Your task to perform on an android device: Open privacy settings Image 0: 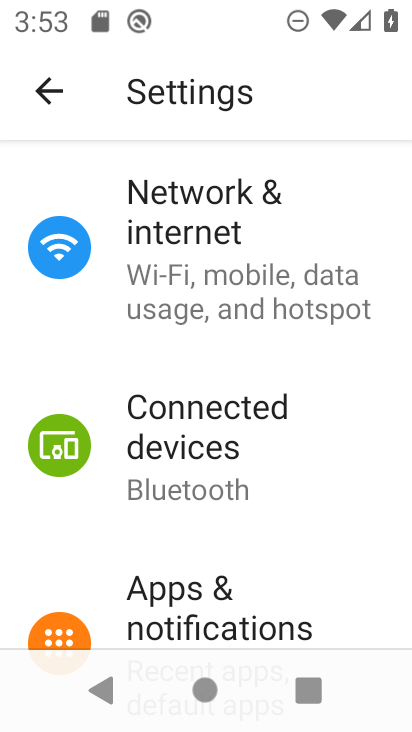
Step 0: drag from (296, 566) to (316, 140)
Your task to perform on an android device: Open privacy settings Image 1: 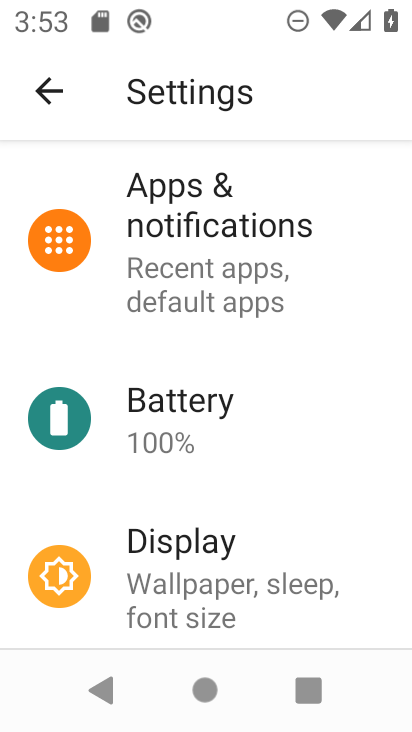
Step 1: drag from (308, 563) to (308, 95)
Your task to perform on an android device: Open privacy settings Image 2: 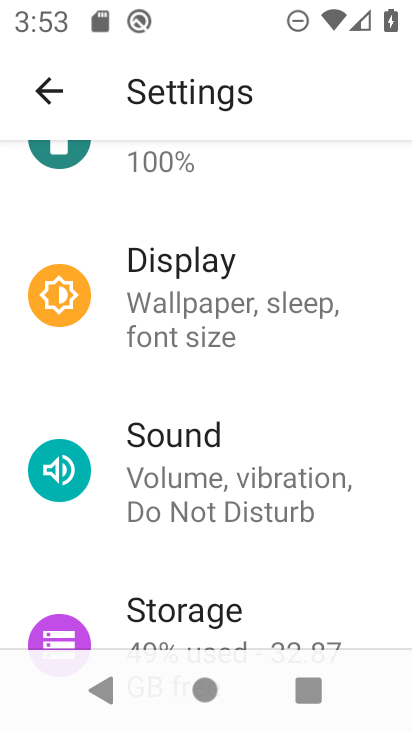
Step 2: drag from (334, 524) to (336, 186)
Your task to perform on an android device: Open privacy settings Image 3: 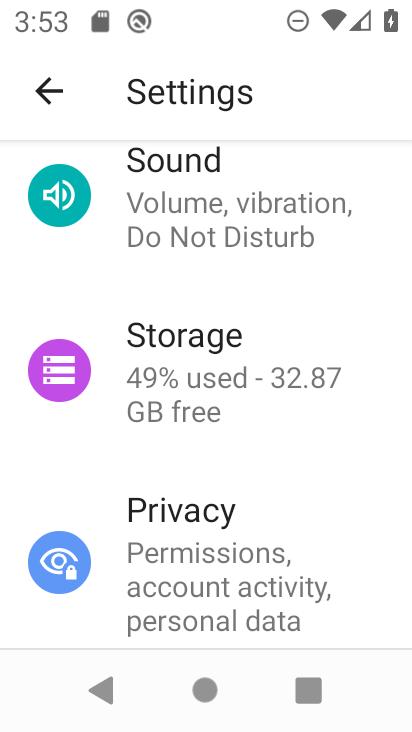
Step 3: click (166, 537)
Your task to perform on an android device: Open privacy settings Image 4: 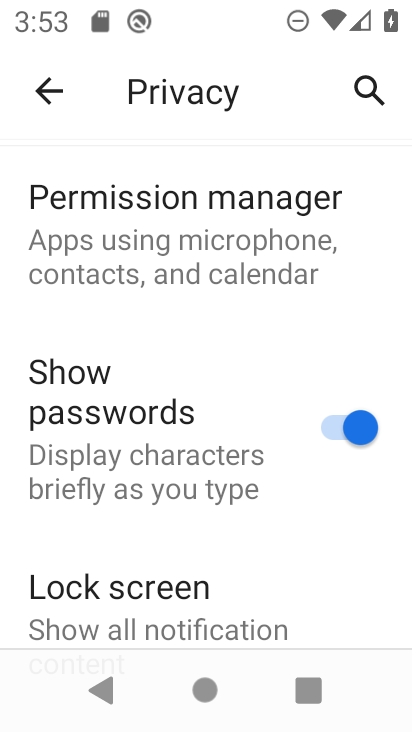
Step 4: drag from (179, 602) to (227, 280)
Your task to perform on an android device: Open privacy settings Image 5: 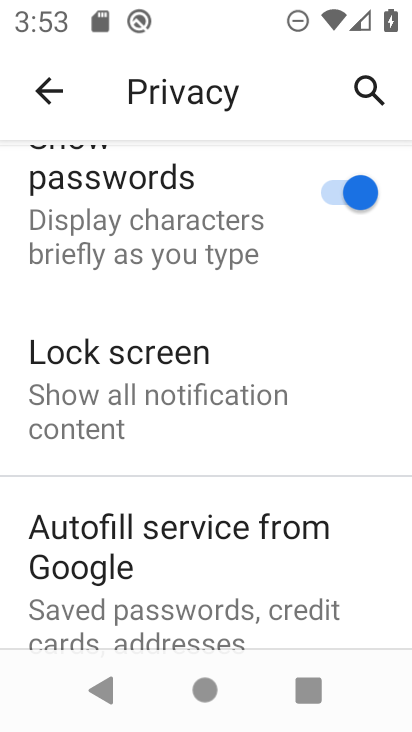
Step 5: drag from (255, 535) to (272, 209)
Your task to perform on an android device: Open privacy settings Image 6: 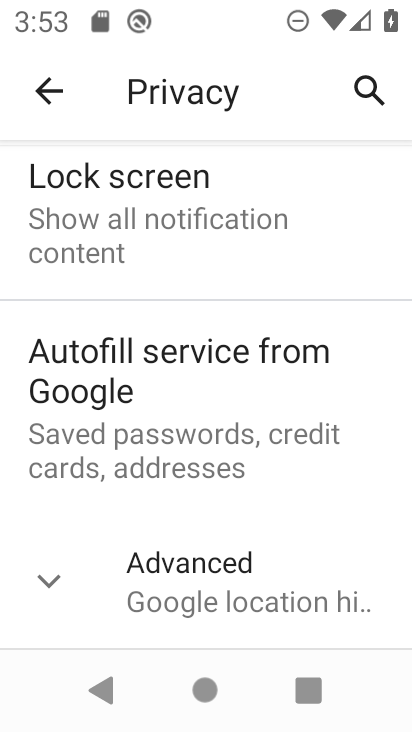
Step 6: click (37, 584)
Your task to perform on an android device: Open privacy settings Image 7: 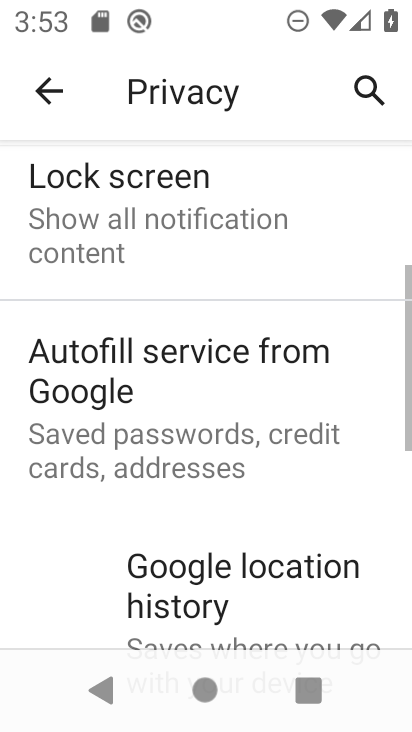
Step 7: task complete